Your task to perform on an android device: open wifi settings Image 0: 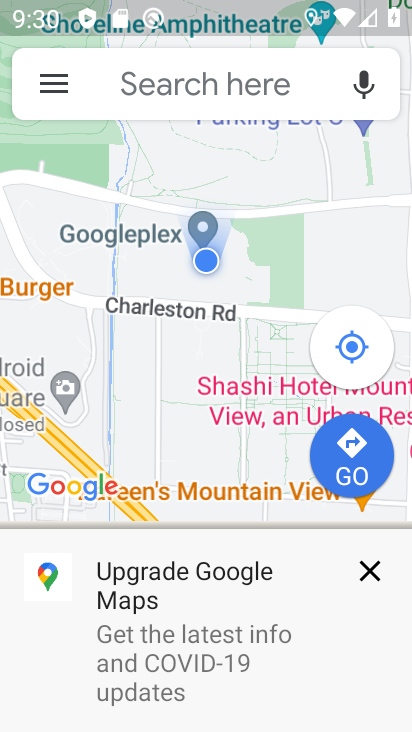
Step 0: press home button
Your task to perform on an android device: open wifi settings Image 1: 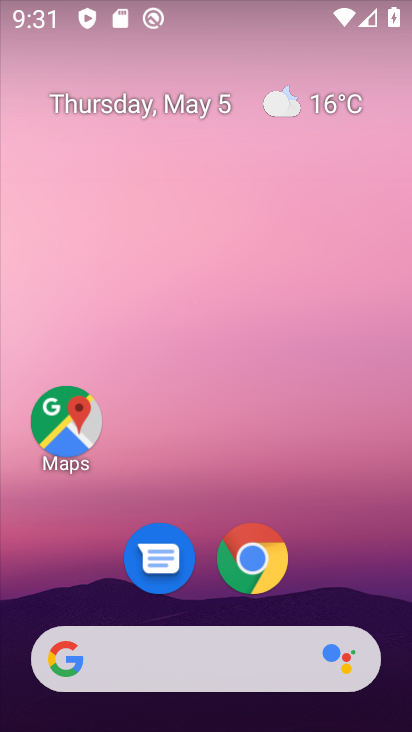
Step 1: drag from (369, 561) to (291, 263)
Your task to perform on an android device: open wifi settings Image 2: 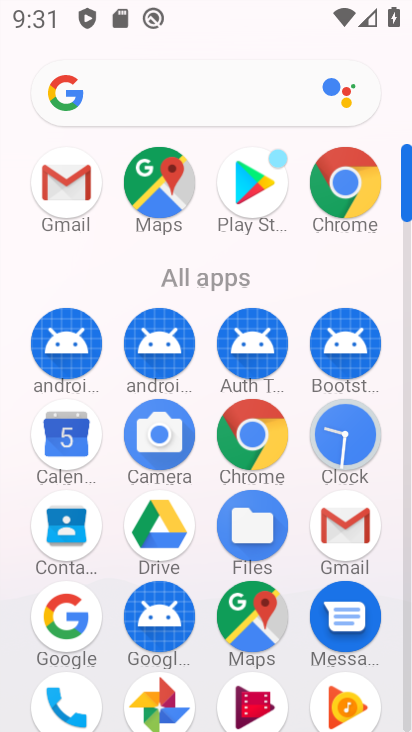
Step 2: click (407, 653)
Your task to perform on an android device: open wifi settings Image 3: 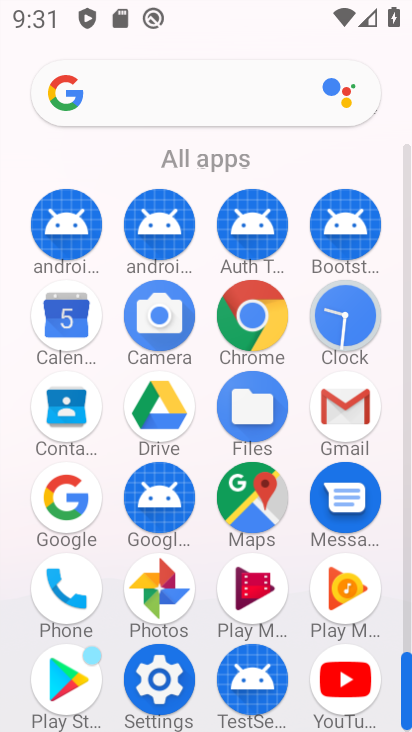
Step 3: click (167, 660)
Your task to perform on an android device: open wifi settings Image 4: 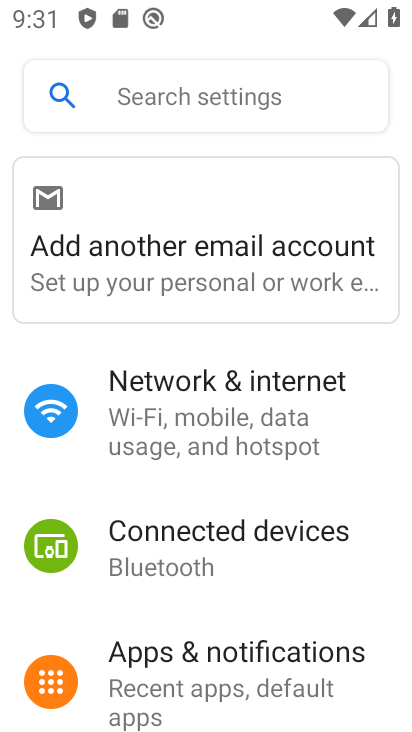
Step 4: click (213, 402)
Your task to perform on an android device: open wifi settings Image 5: 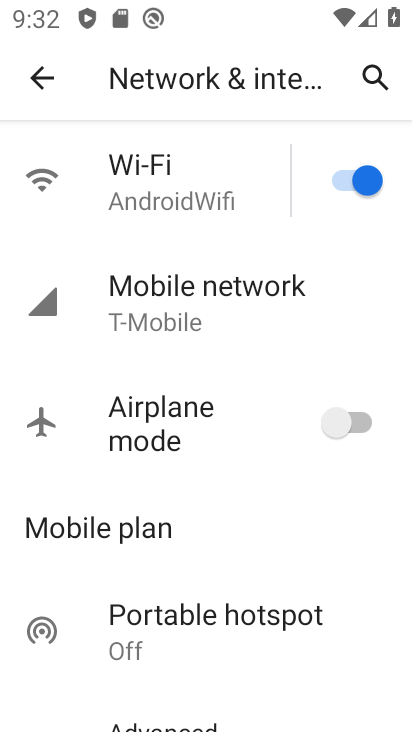
Step 5: click (85, 176)
Your task to perform on an android device: open wifi settings Image 6: 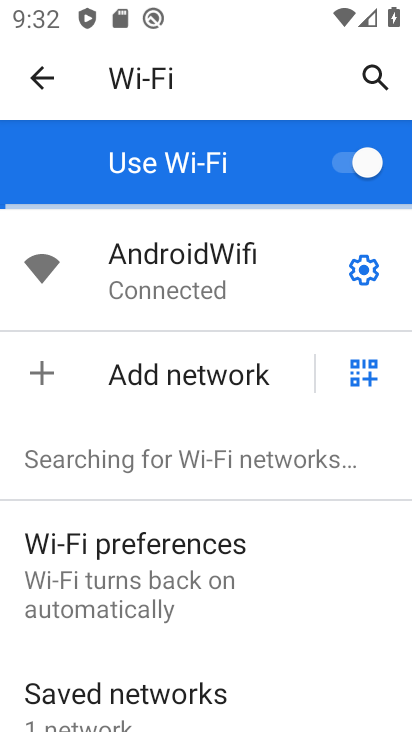
Step 6: task complete